Your task to perform on an android device: What's the weather going to be this weekend? Image 0: 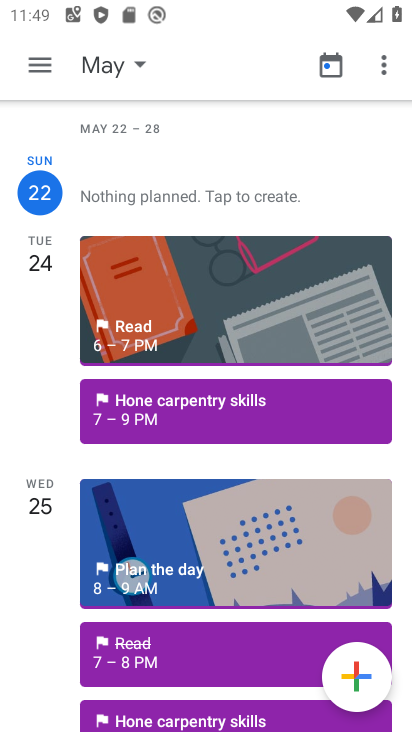
Step 0: press home button
Your task to perform on an android device: What's the weather going to be this weekend? Image 1: 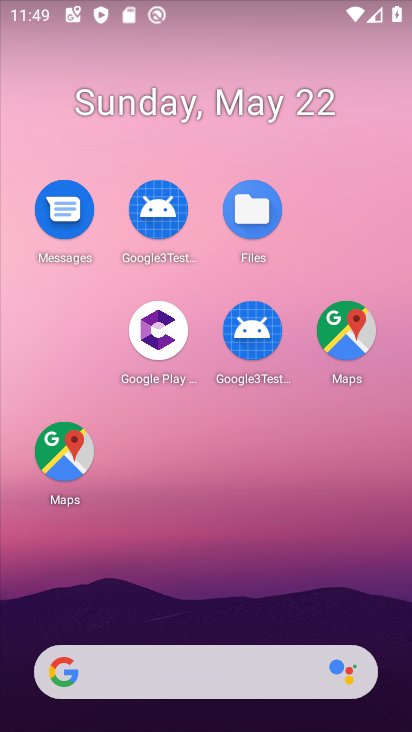
Step 1: drag from (217, 633) to (125, 70)
Your task to perform on an android device: What's the weather going to be this weekend? Image 2: 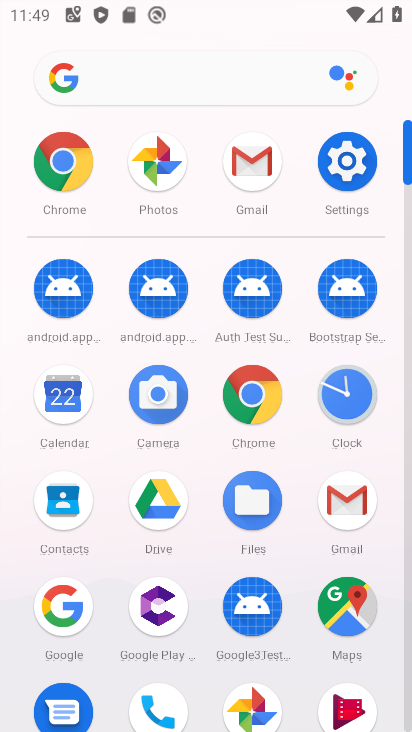
Step 2: click (63, 410)
Your task to perform on an android device: What's the weather going to be this weekend? Image 3: 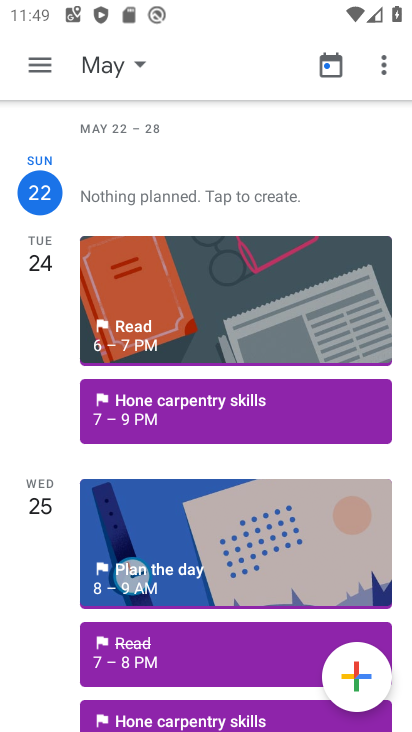
Step 3: press home button
Your task to perform on an android device: What's the weather going to be this weekend? Image 4: 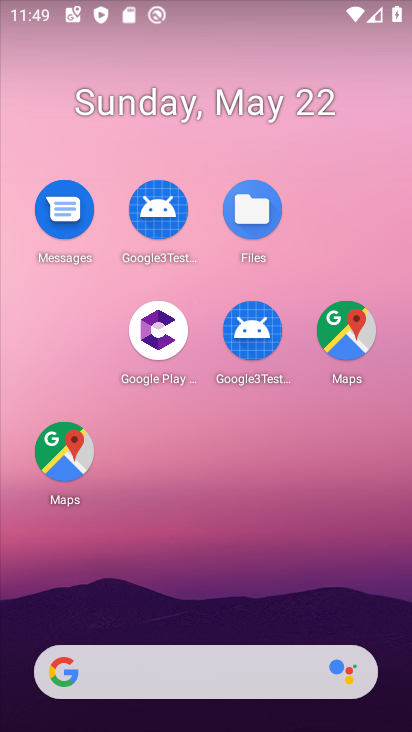
Step 4: click (173, 679)
Your task to perform on an android device: What's the weather going to be this weekend? Image 5: 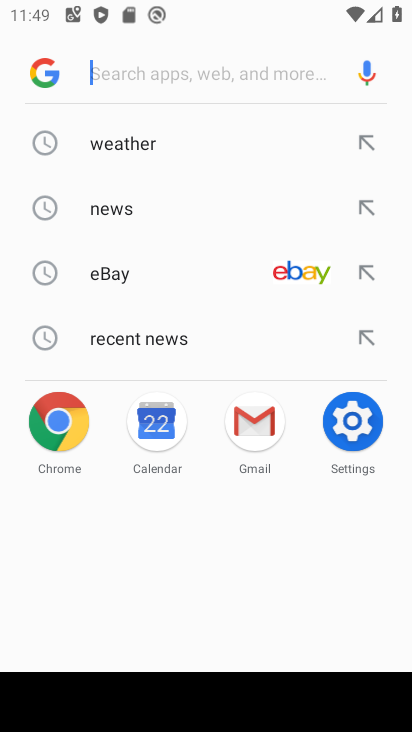
Step 5: click (126, 149)
Your task to perform on an android device: What's the weather going to be this weekend? Image 6: 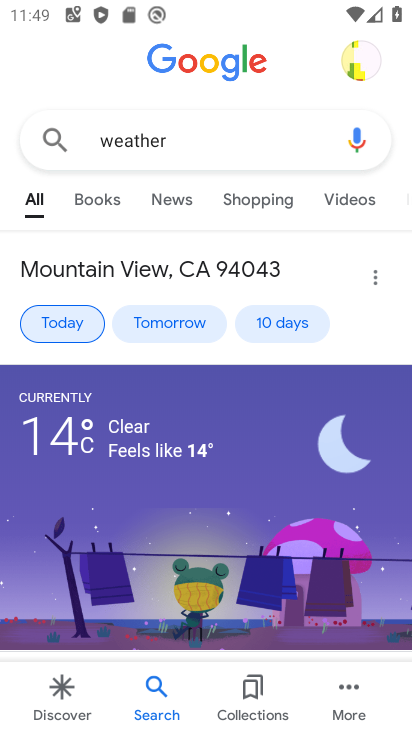
Step 6: click (263, 323)
Your task to perform on an android device: What's the weather going to be this weekend? Image 7: 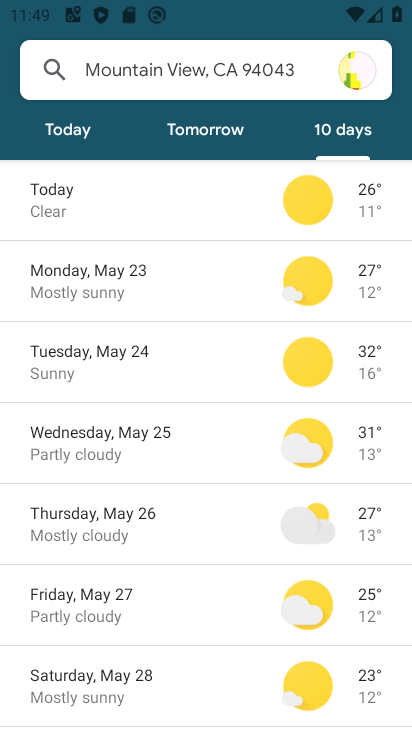
Step 7: task complete